Your task to perform on an android device: toggle wifi Image 0: 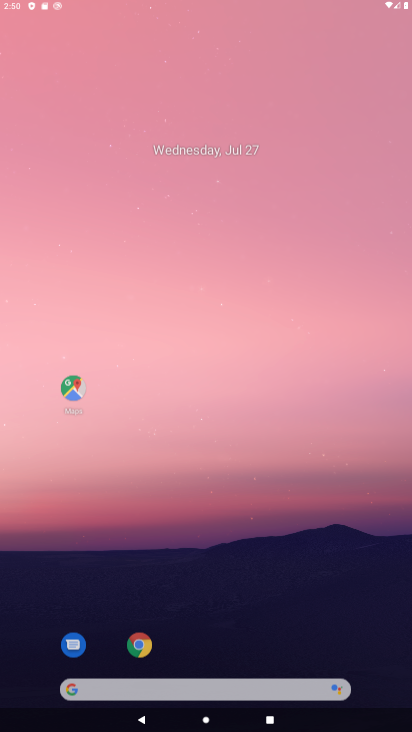
Step 0: press home button
Your task to perform on an android device: toggle wifi Image 1: 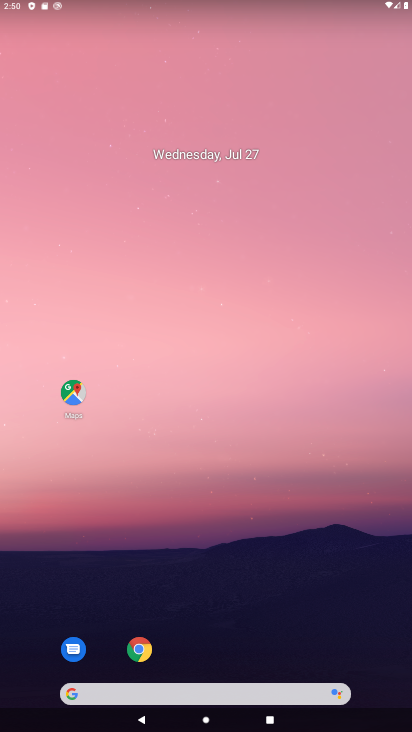
Step 1: drag from (117, 3) to (111, 458)
Your task to perform on an android device: toggle wifi Image 2: 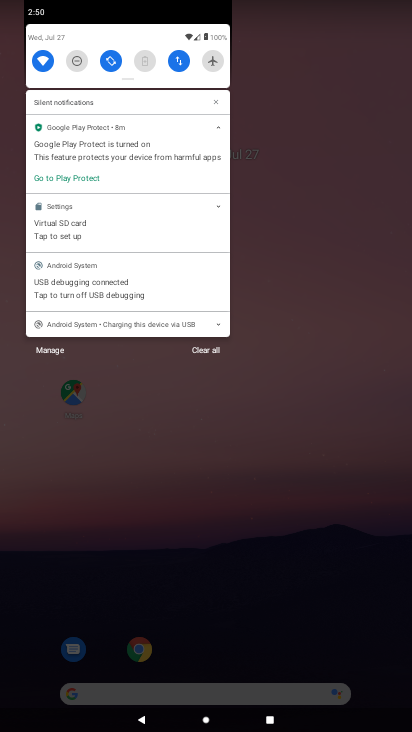
Step 2: click (39, 56)
Your task to perform on an android device: toggle wifi Image 3: 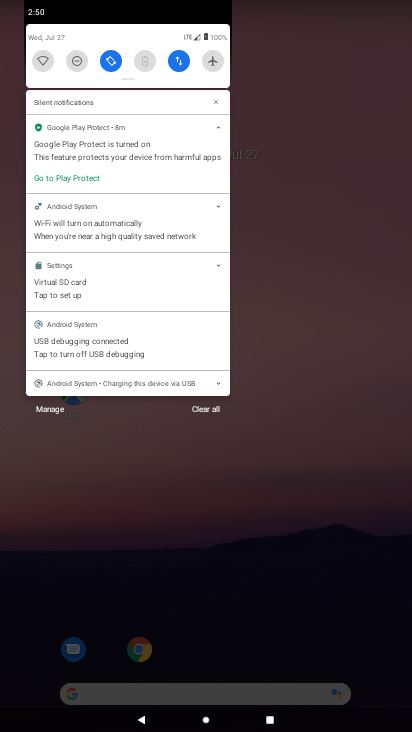
Step 3: task complete